Your task to perform on an android device: Find coffee shops on Maps Image 0: 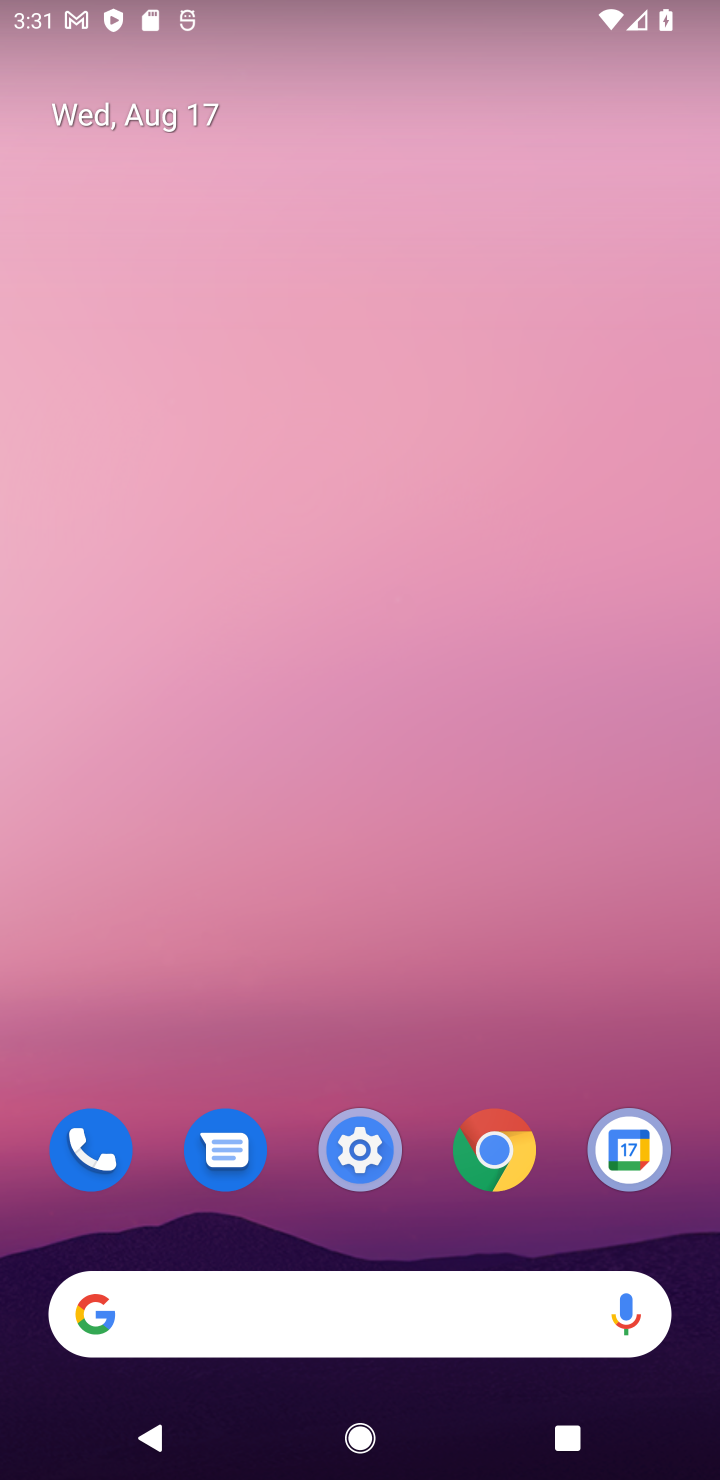
Step 0: drag from (507, 1085) to (387, 1)
Your task to perform on an android device: Find coffee shops on Maps Image 1: 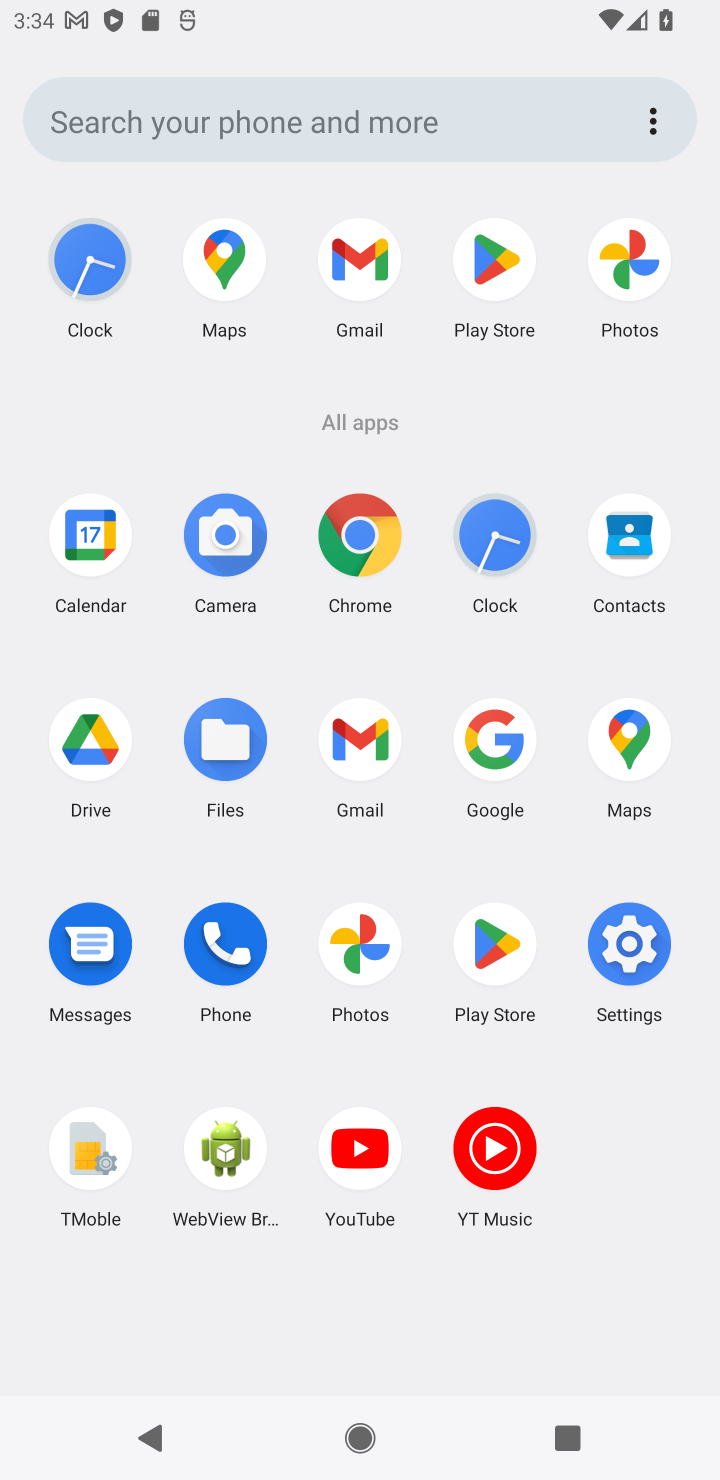
Step 1: click (604, 747)
Your task to perform on an android device: Find coffee shops on Maps Image 2: 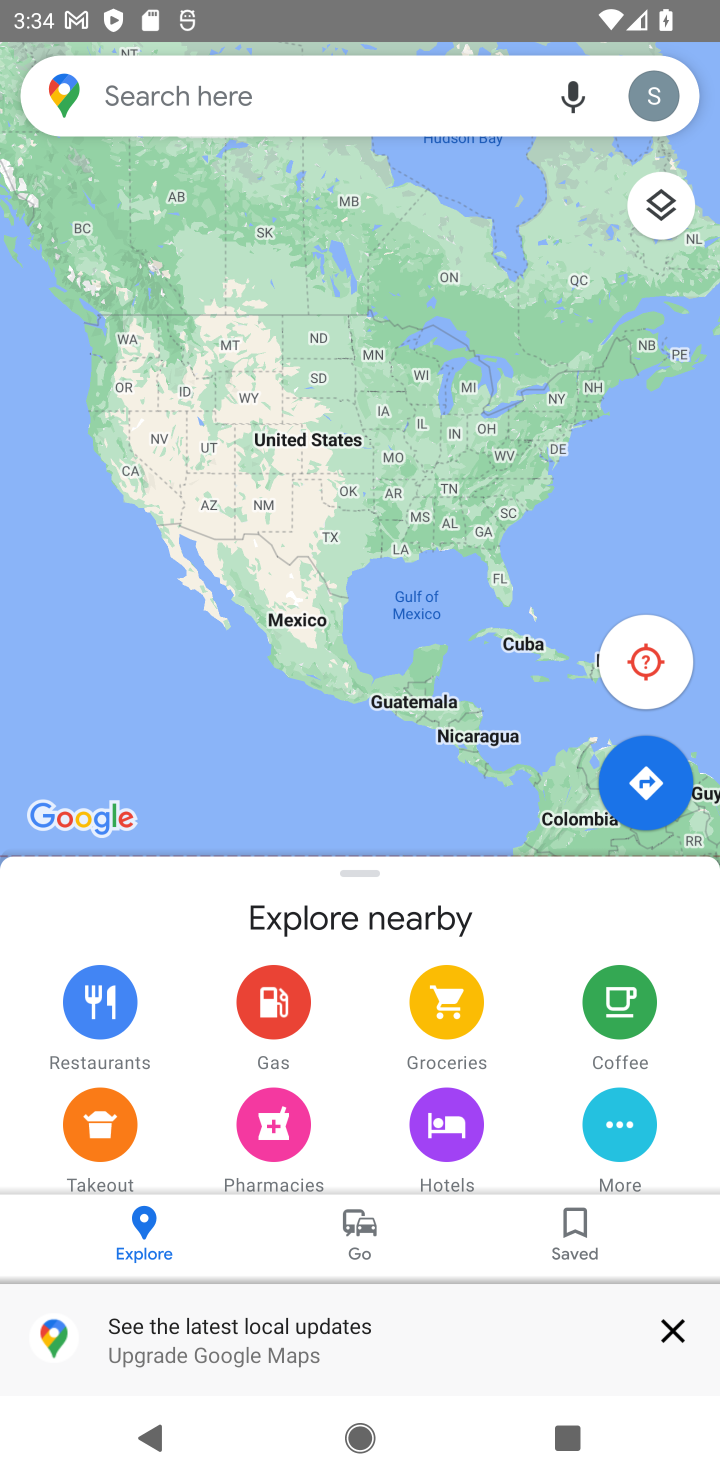
Step 2: click (288, 99)
Your task to perform on an android device: Find coffee shops on Maps Image 3: 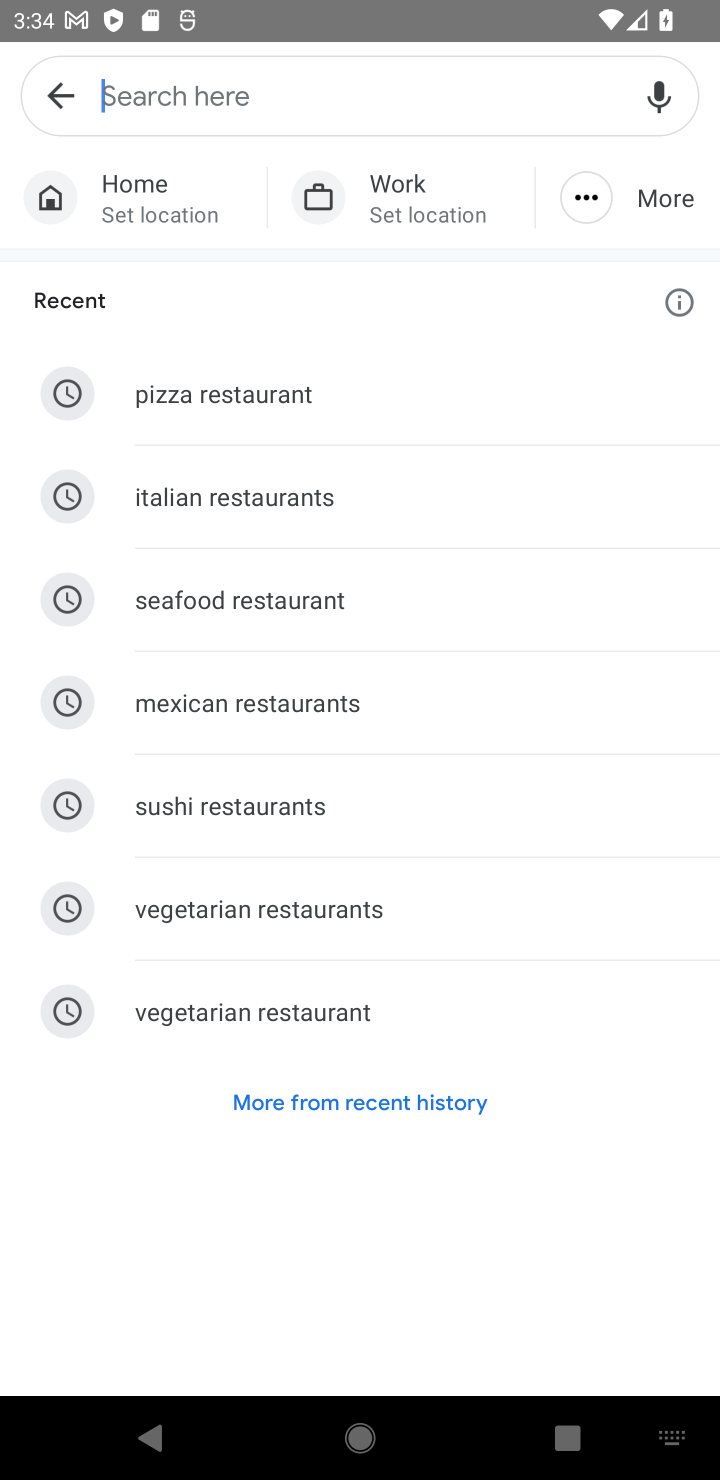
Step 3: type "coffee"
Your task to perform on an android device: Find coffee shops on Maps Image 4: 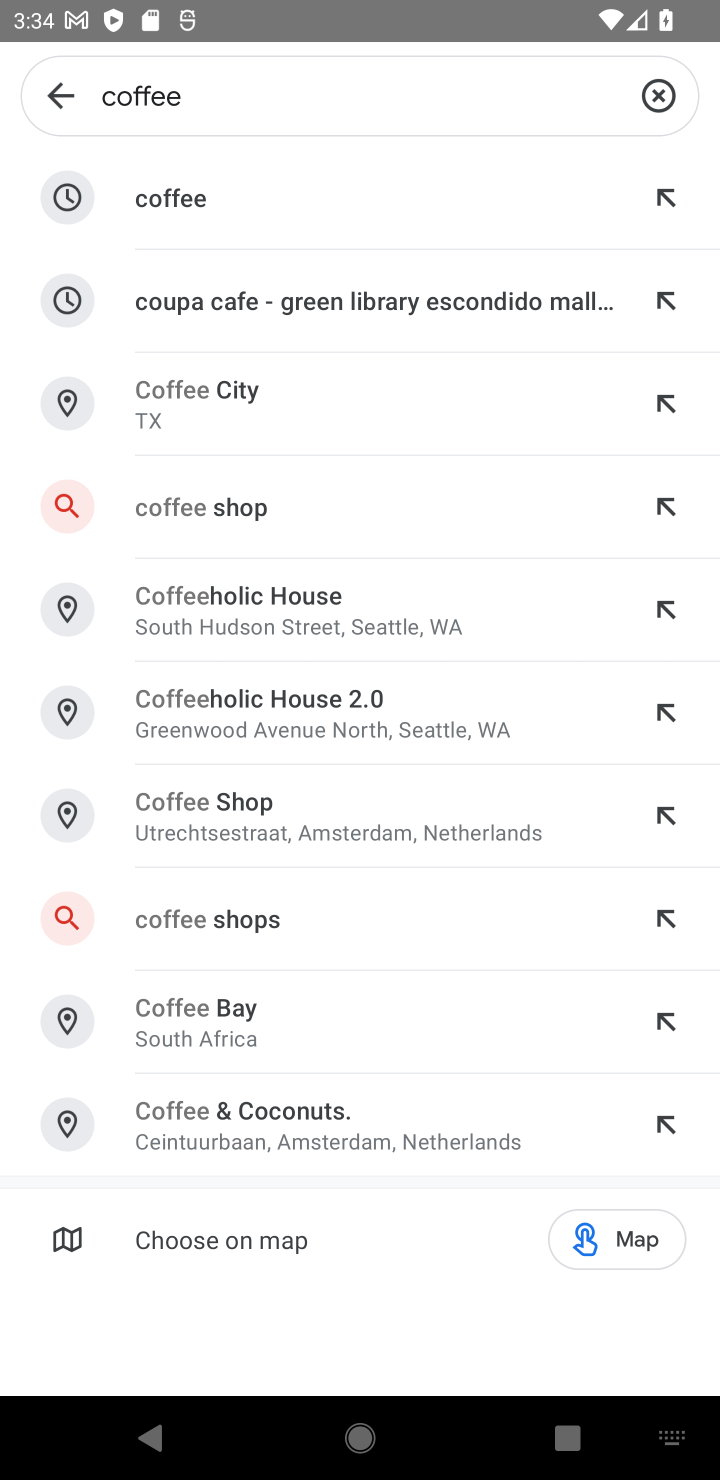
Step 4: click (287, 196)
Your task to perform on an android device: Find coffee shops on Maps Image 5: 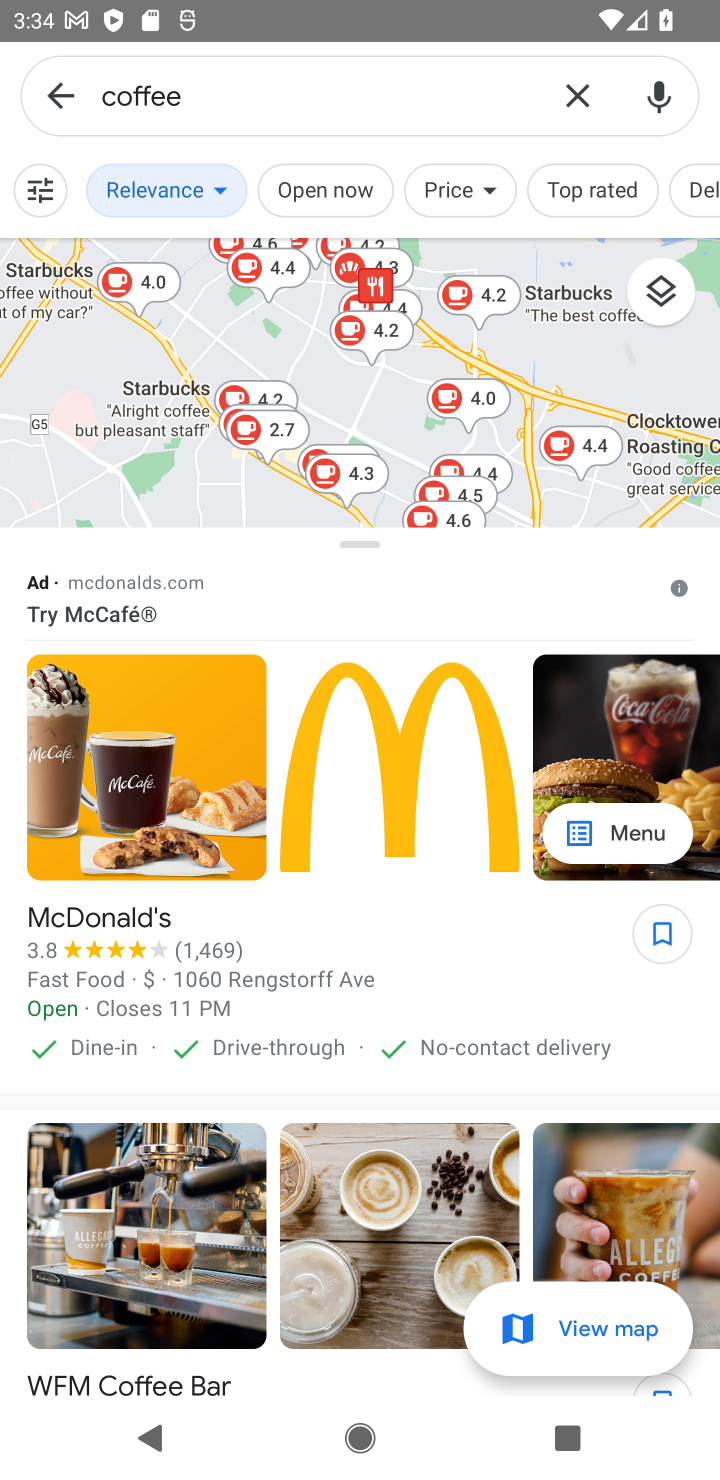
Step 5: task complete